Your task to perform on an android device: turn on airplane mode Image 0: 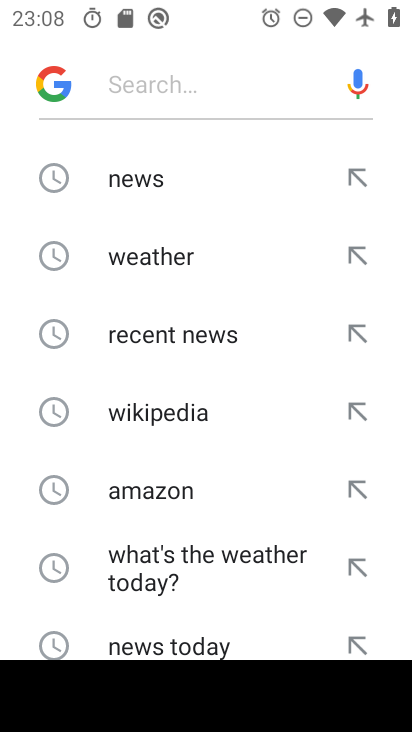
Step 0: press home button
Your task to perform on an android device: turn on airplane mode Image 1: 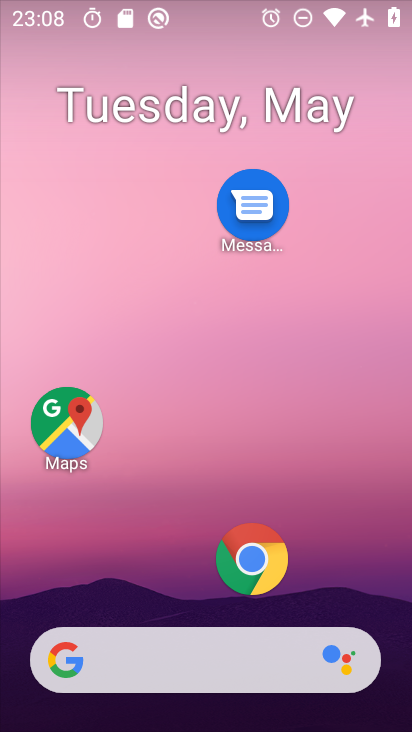
Step 1: drag from (168, 595) to (173, 131)
Your task to perform on an android device: turn on airplane mode Image 2: 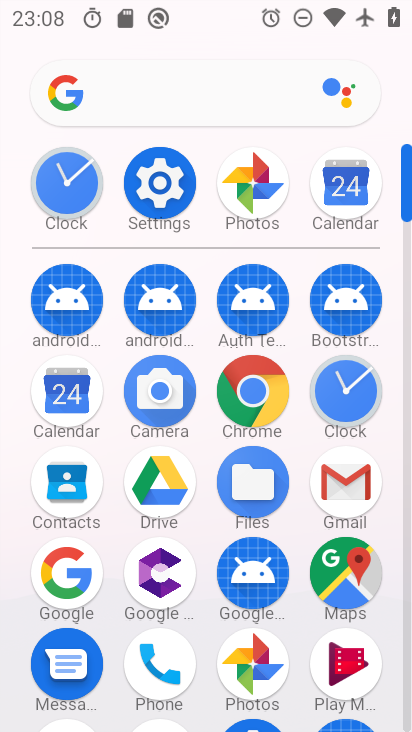
Step 2: click (173, 165)
Your task to perform on an android device: turn on airplane mode Image 3: 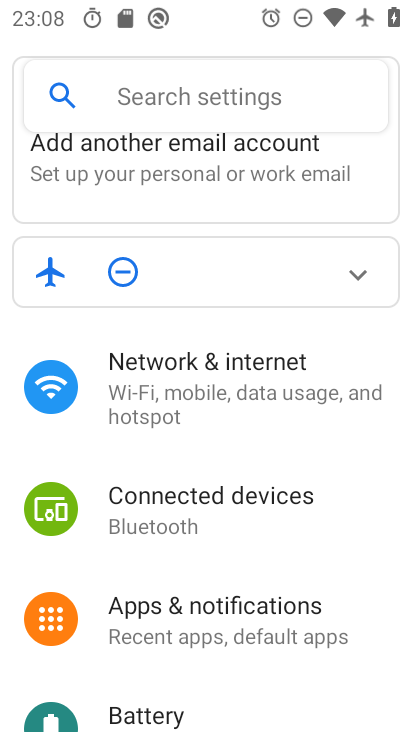
Step 3: click (198, 381)
Your task to perform on an android device: turn on airplane mode Image 4: 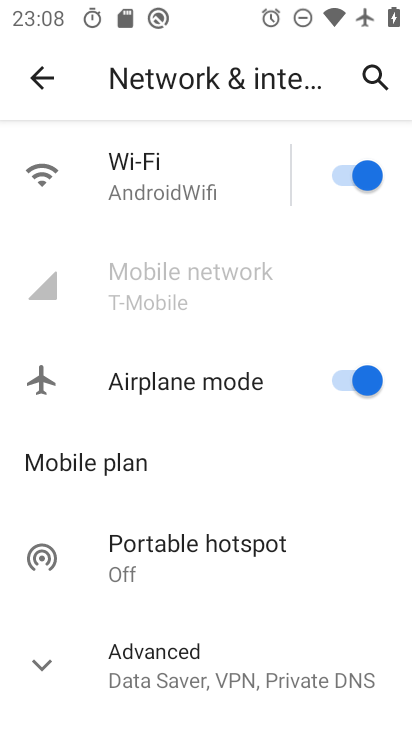
Step 4: task complete